Your task to perform on an android device: turn on notifications settings in the gmail app Image 0: 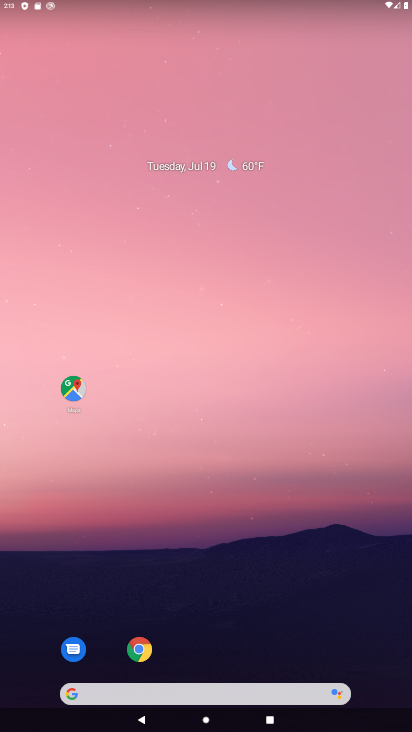
Step 0: drag from (206, 640) to (212, 161)
Your task to perform on an android device: turn on notifications settings in the gmail app Image 1: 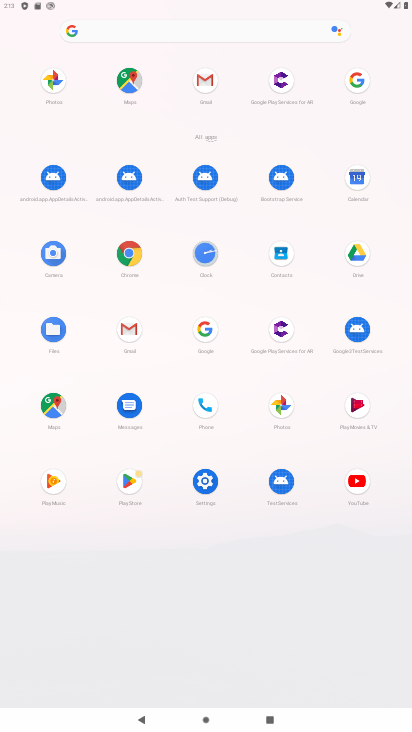
Step 1: click (127, 333)
Your task to perform on an android device: turn on notifications settings in the gmail app Image 2: 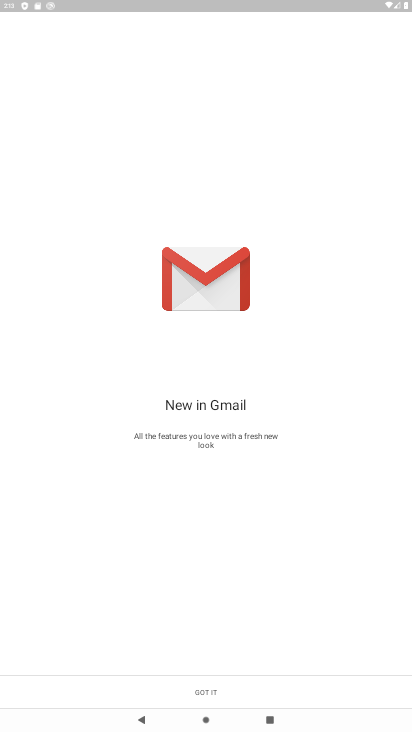
Step 2: click (202, 686)
Your task to perform on an android device: turn on notifications settings in the gmail app Image 3: 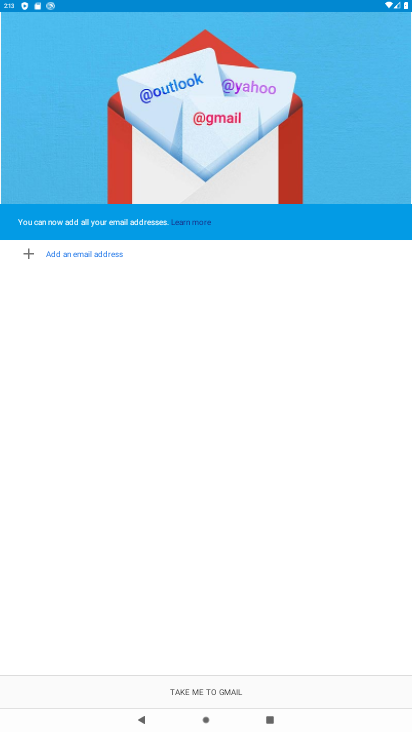
Step 3: click (202, 686)
Your task to perform on an android device: turn on notifications settings in the gmail app Image 4: 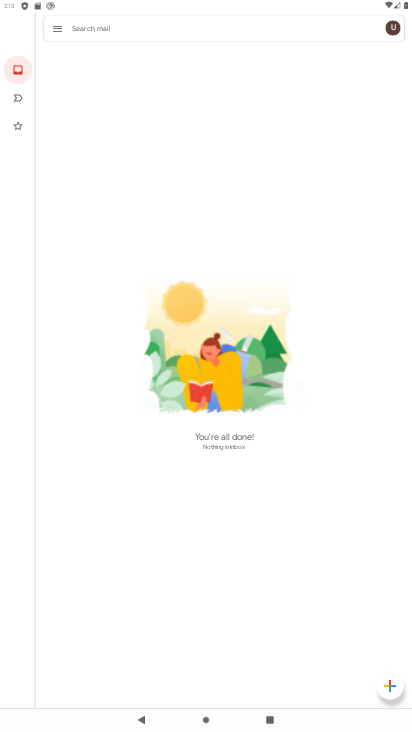
Step 4: click (56, 27)
Your task to perform on an android device: turn on notifications settings in the gmail app Image 5: 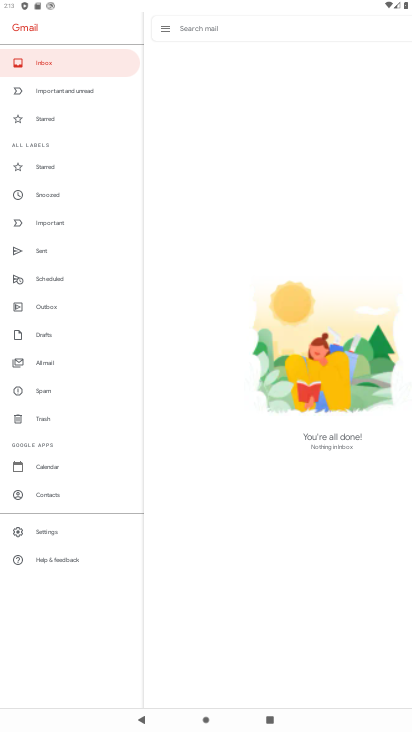
Step 5: click (53, 526)
Your task to perform on an android device: turn on notifications settings in the gmail app Image 6: 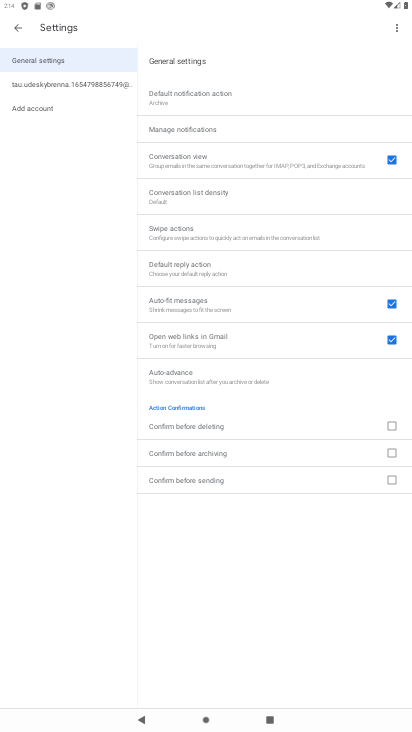
Step 6: click (80, 79)
Your task to perform on an android device: turn on notifications settings in the gmail app Image 7: 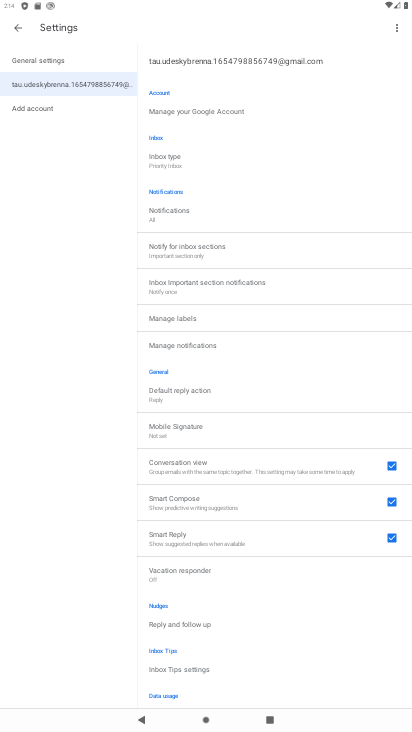
Step 7: click (172, 216)
Your task to perform on an android device: turn on notifications settings in the gmail app Image 8: 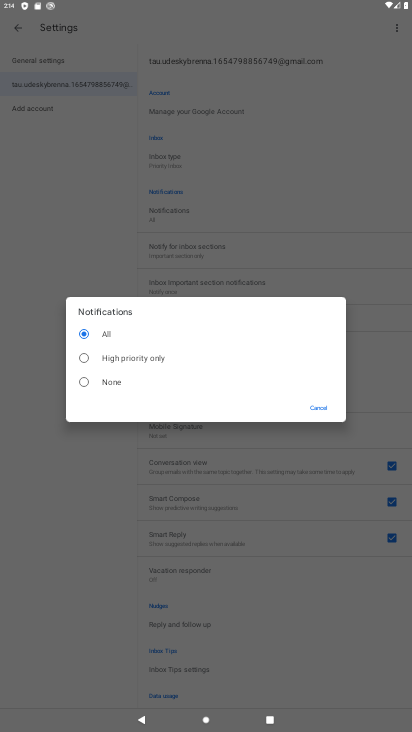
Step 8: task complete